Your task to perform on an android device: Is it going to rain today? Image 0: 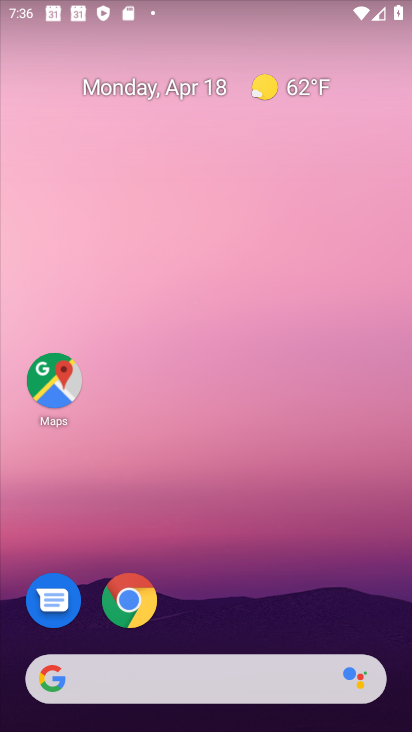
Step 0: click (296, 94)
Your task to perform on an android device: Is it going to rain today? Image 1: 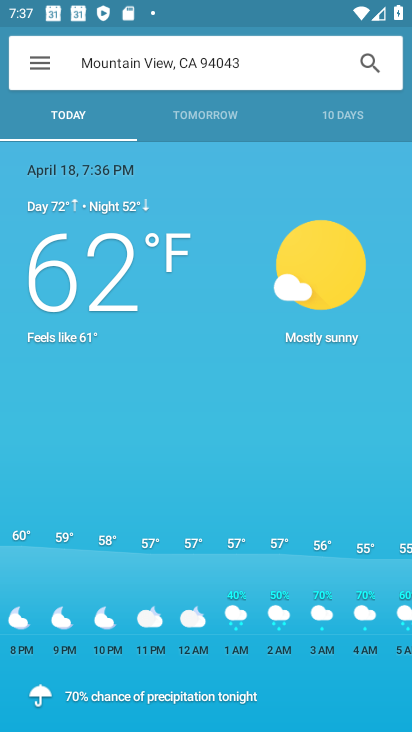
Step 1: task complete